Your task to perform on an android device: set default search engine in the chrome app Image 0: 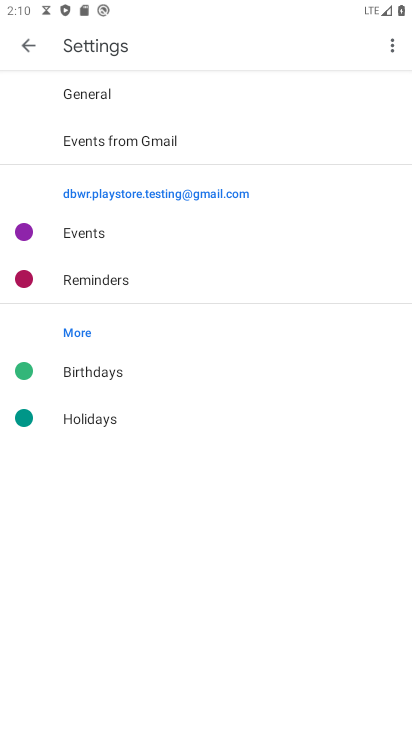
Step 0: press home button
Your task to perform on an android device: set default search engine in the chrome app Image 1: 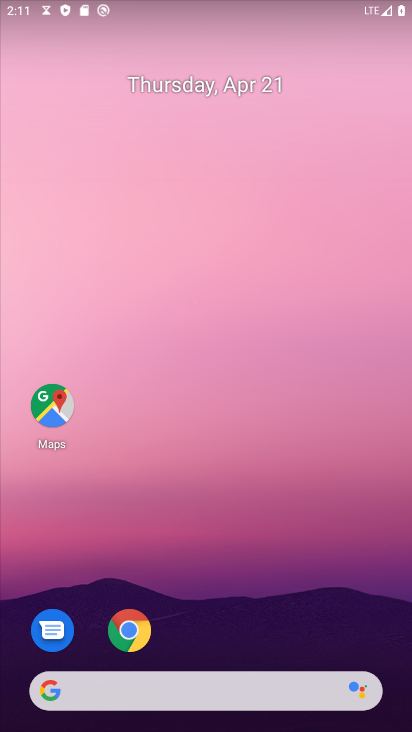
Step 1: click (131, 628)
Your task to perform on an android device: set default search engine in the chrome app Image 2: 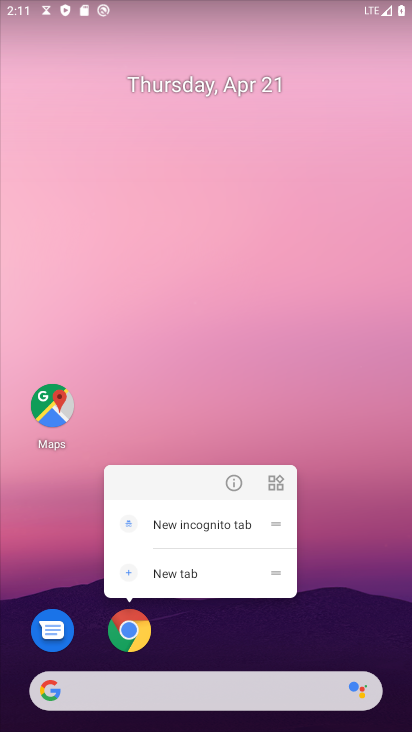
Step 2: click (128, 636)
Your task to perform on an android device: set default search engine in the chrome app Image 3: 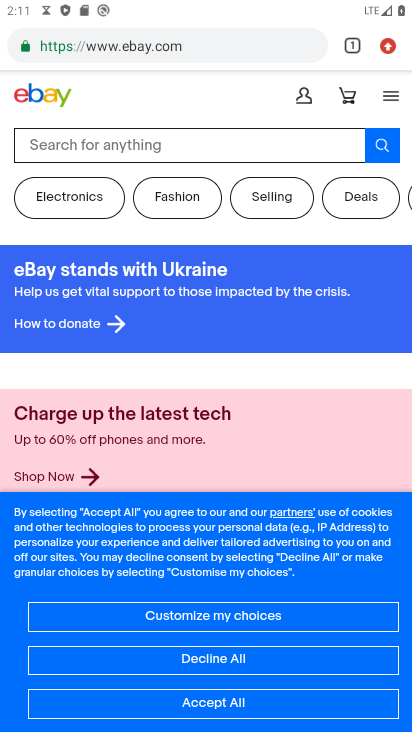
Step 3: click (389, 47)
Your task to perform on an android device: set default search engine in the chrome app Image 4: 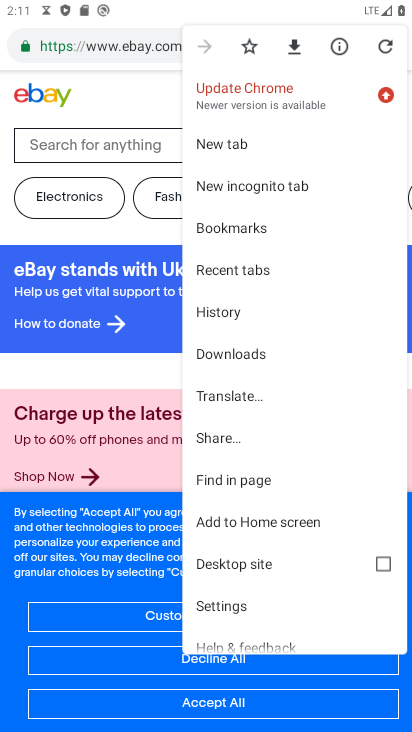
Step 4: click (210, 601)
Your task to perform on an android device: set default search engine in the chrome app Image 5: 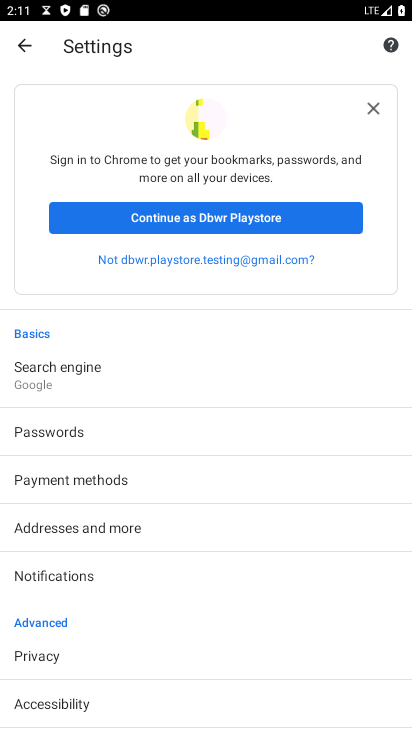
Step 5: click (62, 382)
Your task to perform on an android device: set default search engine in the chrome app Image 6: 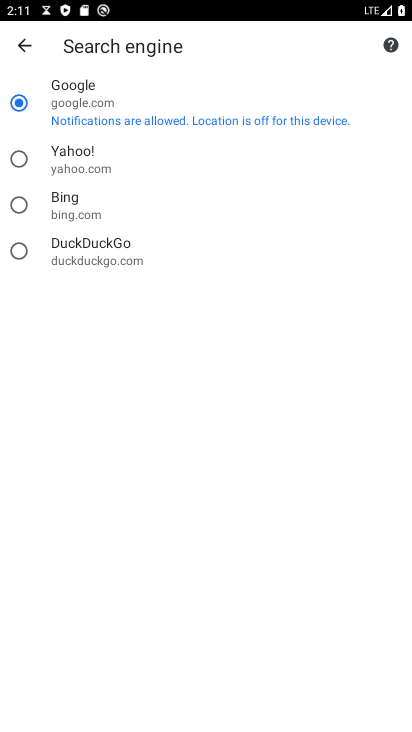
Step 6: click (25, 155)
Your task to perform on an android device: set default search engine in the chrome app Image 7: 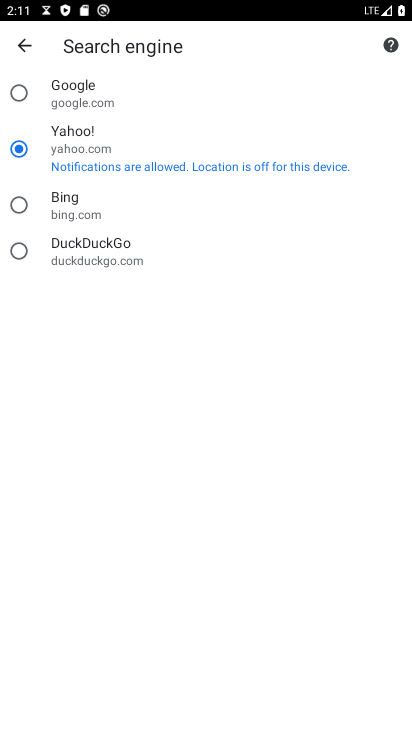
Step 7: click (25, 155)
Your task to perform on an android device: set default search engine in the chrome app Image 8: 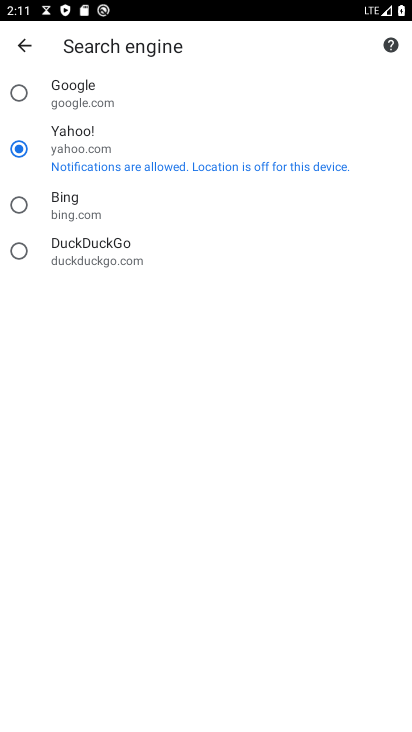
Step 8: task complete